Your task to perform on an android device: Open CNN.com Image 0: 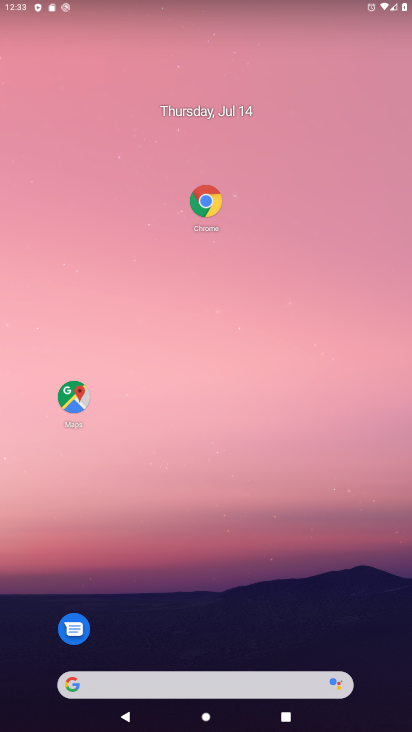
Step 0: click (211, 201)
Your task to perform on an android device: Open CNN.com Image 1: 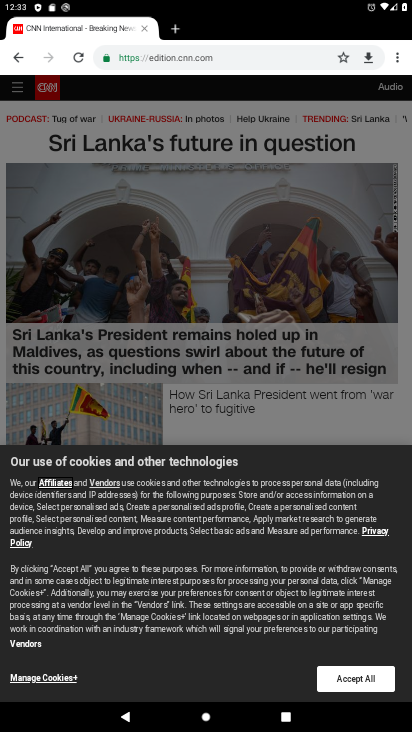
Step 1: click (211, 201)
Your task to perform on an android device: Open CNN.com Image 2: 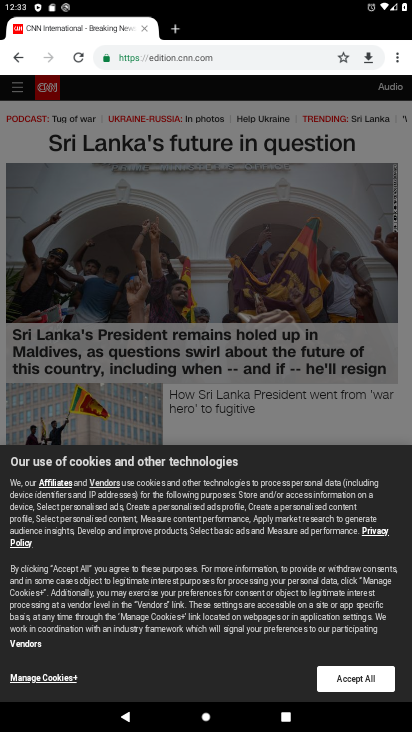
Step 2: click (385, 673)
Your task to perform on an android device: Open CNN.com Image 3: 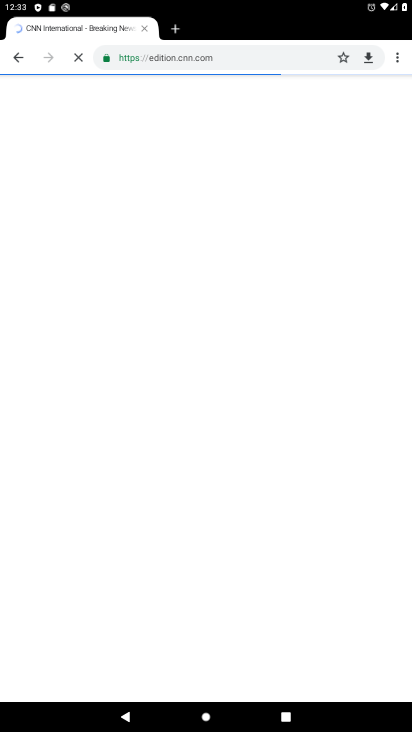
Step 3: task complete